Your task to perform on an android device: Open Google Chrome and open the bookmarks view Image 0: 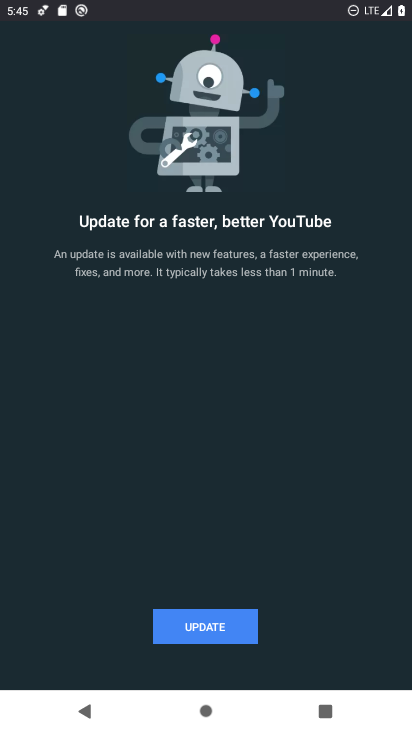
Step 0: drag from (192, 595) to (192, 438)
Your task to perform on an android device: Open Google Chrome and open the bookmarks view Image 1: 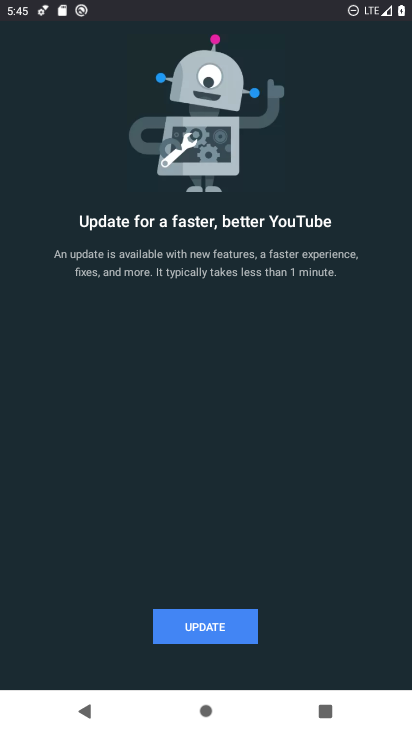
Step 1: press home button
Your task to perform on an android device: Open Google Chrome and open the bookmarks view Image 2: 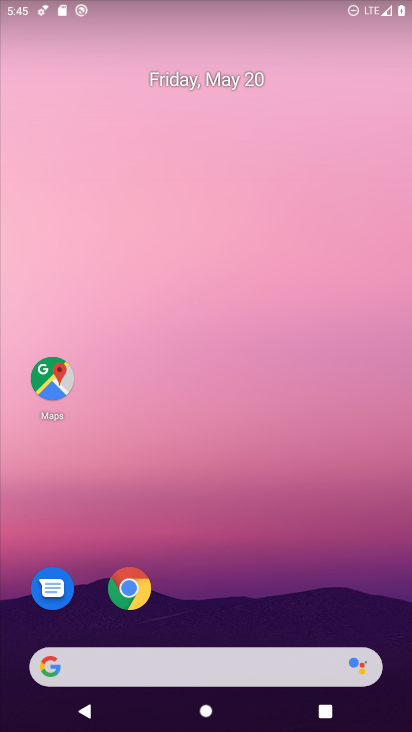
Step 2: drag from (234, 375) to (211, 152)
Your task to perform on an android device: Open Google Chrome and open the bookmarks view Image 3: 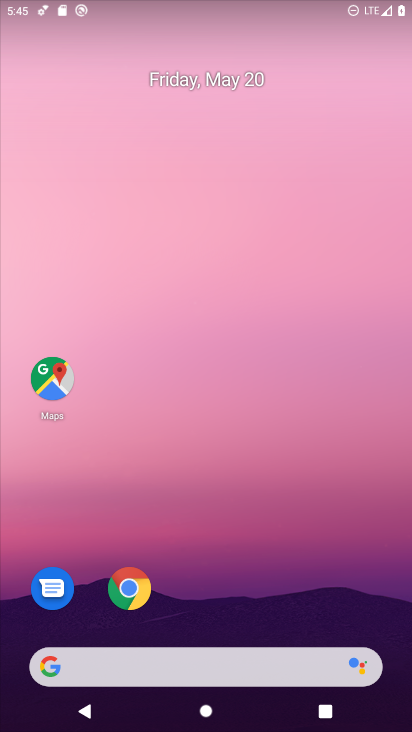
Step 3: drag from (182, 574) to (178, 85)
Your task to perform on an android device: Open Google Chrome and open the bookmarks view Image 4: 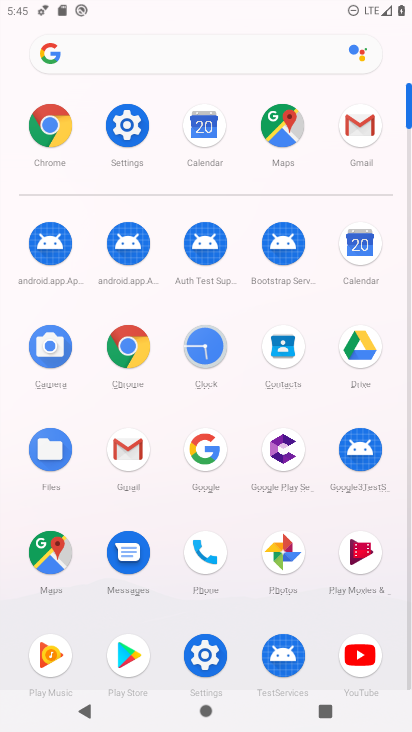
Step 4: click (128, 362)
Your task to perform on an android device: Open Google Chrome and open the bookmarks view Image 5: 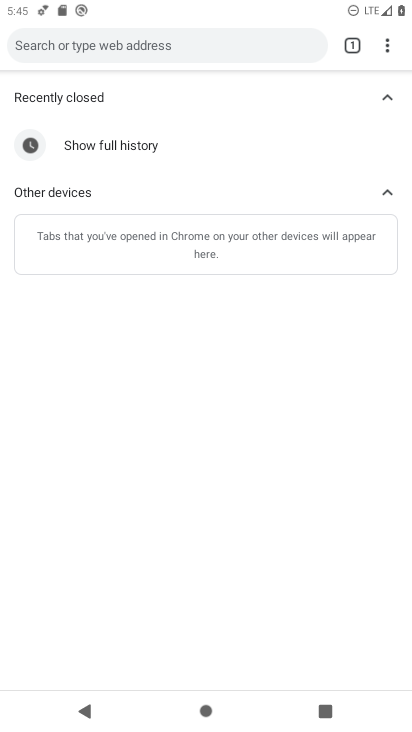
Step 5: press back button
Your task to perform on an android device: Open Google Chrome and open the bookmarks view Image 6: 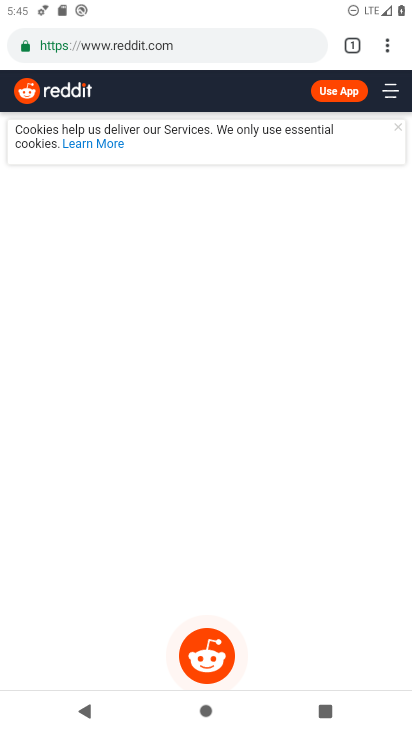
Step 6: press back button
Your task to perform on an android device: Open Google Chrome and open the bookmarks view Image 7: 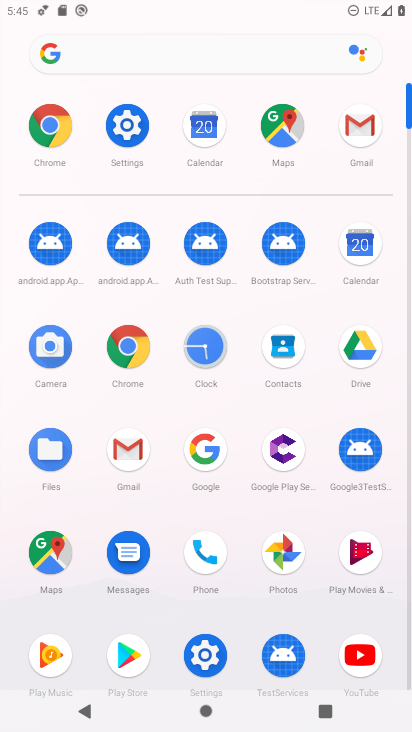
Step 7: press back button
Your task to perform on an android device: Open Google Chrome and open the bookmarks view Image 8: 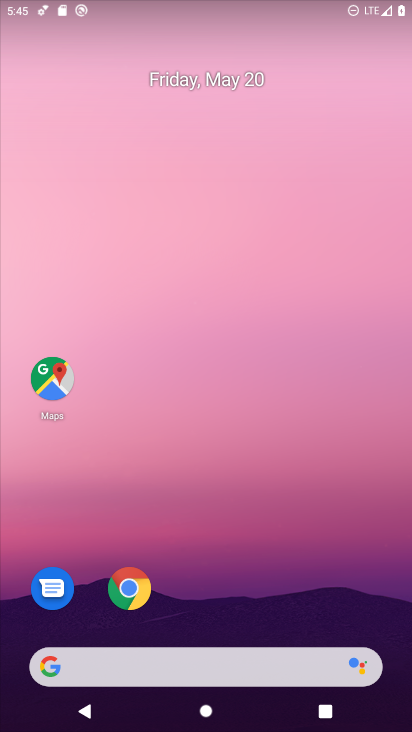
Step 8: click (129, 587)
Your task to perform on an android device: Open Google Chrome and open the bookmarks view Image 9: 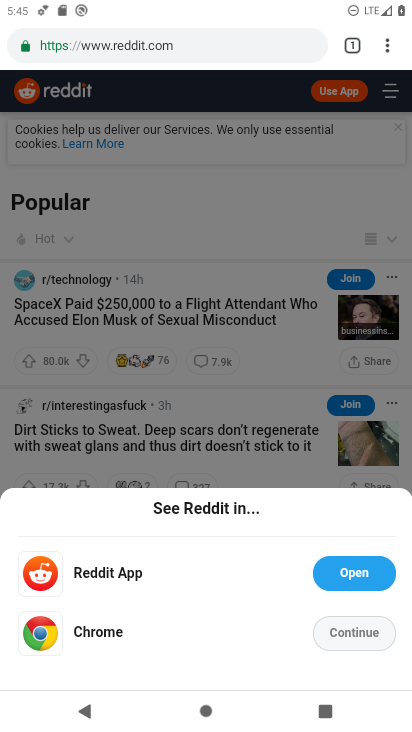
Step 9: click (349, 636)
Your task to perform on an android device: Open Google Chrome and open the bookmarks view Image 10: 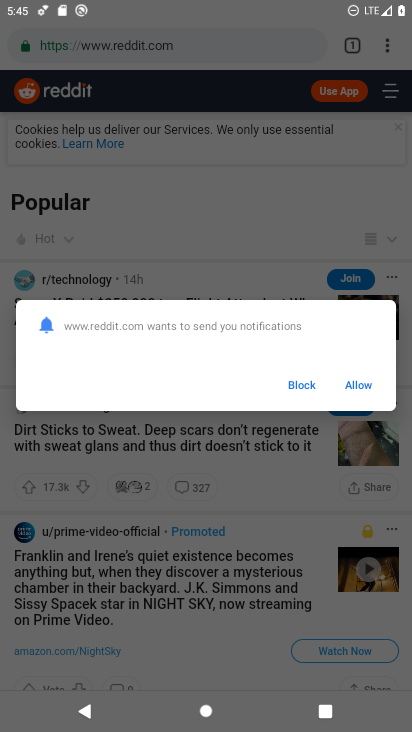
Step 10: click (297, 383)
Your task to perform on an android device: Open Google Chrome and open the bookmarks view Image 11: 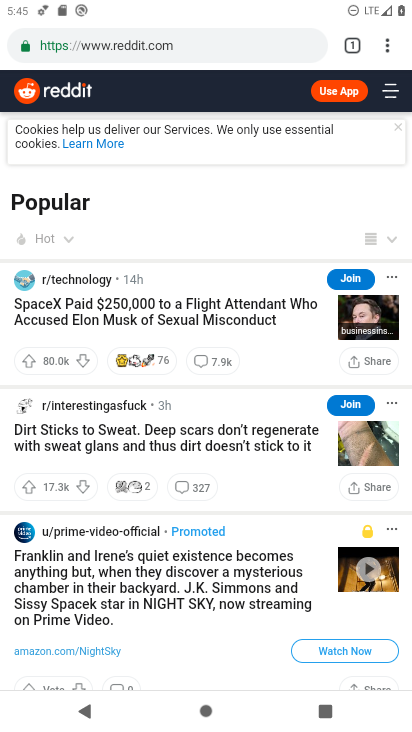
Step 11: click (383, 42)
Your task to perform on an android device: Open Google Chrome and open the bookmarks view Image 12: 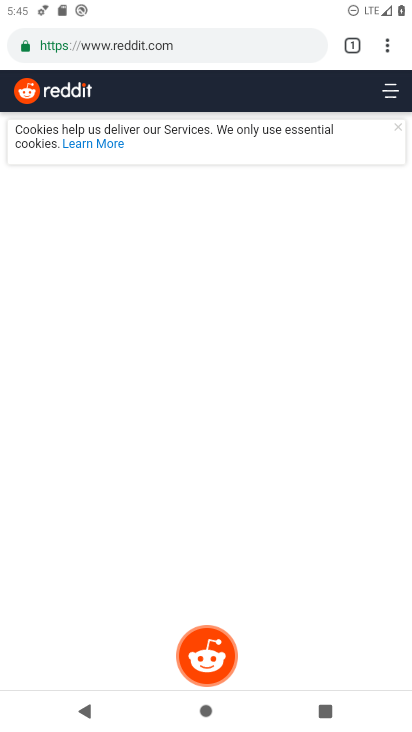
Step 12: click (389, 43)
Your task to perform on an android device: Open Google Chrome and open the bookmarks view Image 13: 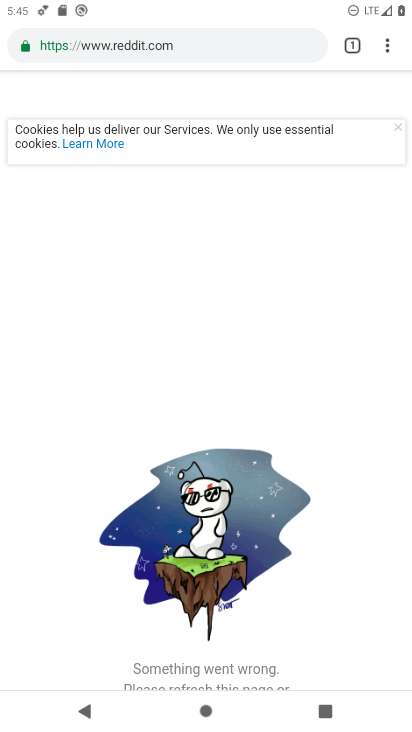
Step 13: click (389, 47)
Your task to perform on an android device: Open Google Chrome and open the bookmarks view Image 14: 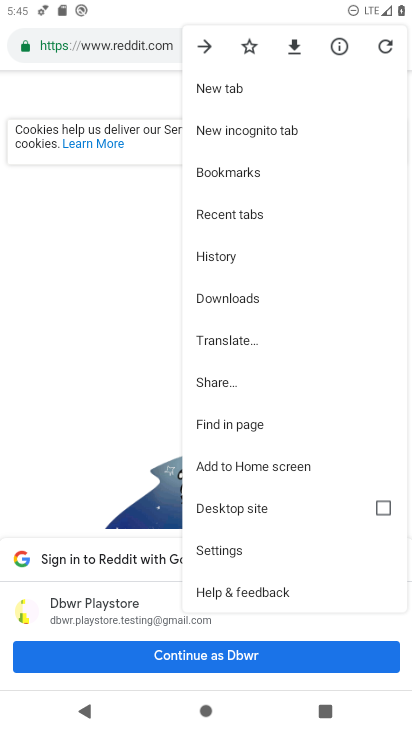
Step 14: click (235, 163)
Your task to perform on an android device: Open Google Chrome and open the bookmarks view Image 15: 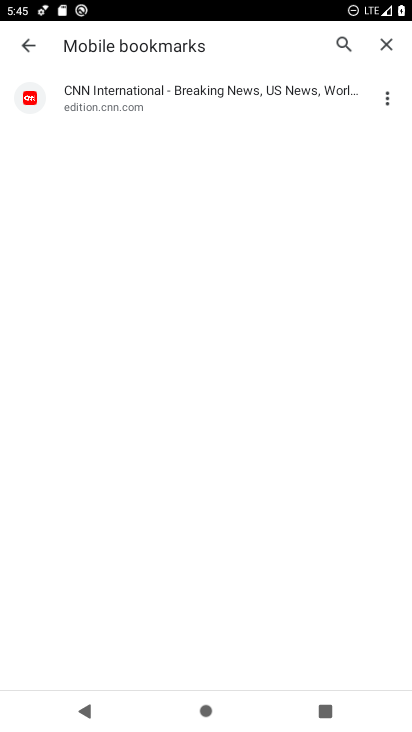
Step 15: task complete